Your task to perform on an android device: Open sound settings Image 0: 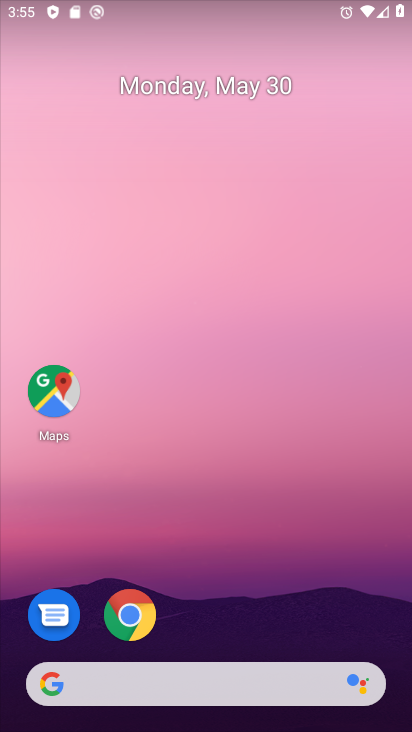
Step 0: drag from (248, 593) to (271, 12)
Your task to perform on an android device: Open sound settings Image 1: 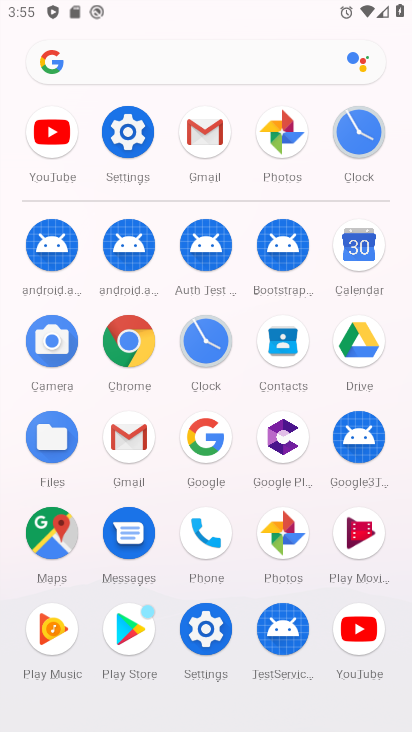
Step 1: click (127, 132)
Your task to perform on an android device: Open sound settings Image 2: 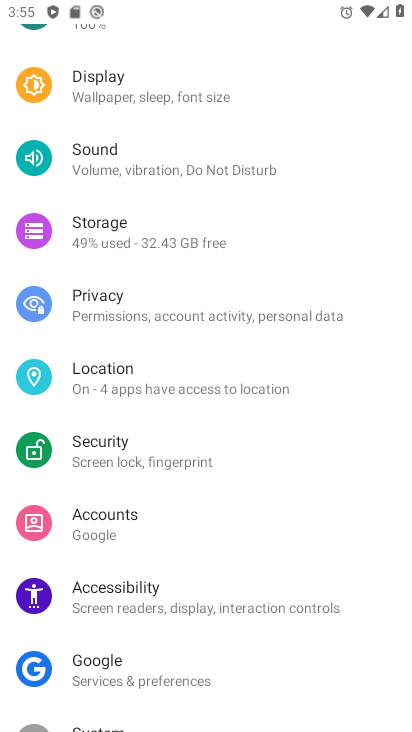
Step 2: click (141, 159)
Your task to perform on an android device: Open sound settings Image 3: 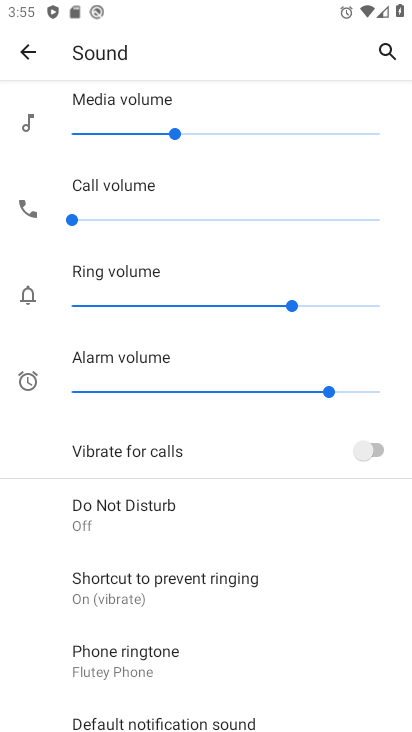
Step 3: task complete